Your task to perform on an android device: Open CNN.com Image 0: 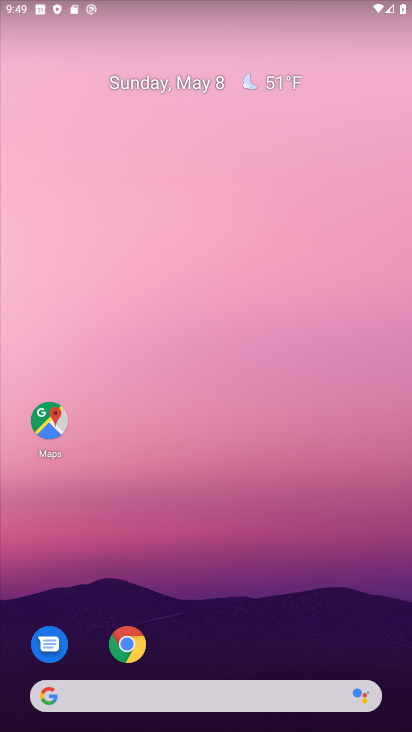
Step 0: click (146, 691)
Your task to perform on an android device: Open CNN.com Image 1: 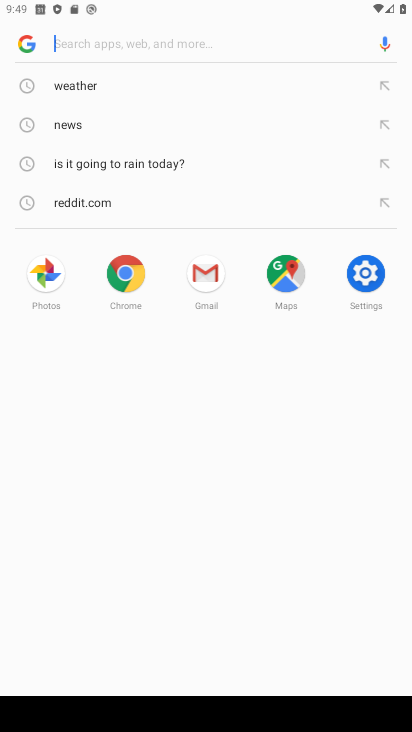
Step 1: type "cnn"
Your task to perform on an android device: Open CNN.com Image 2: 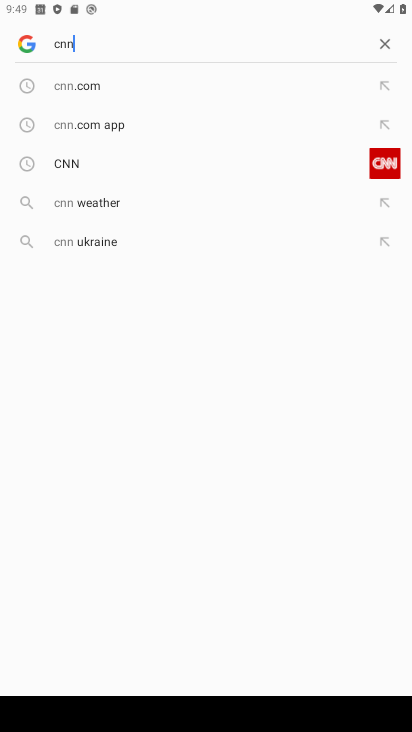
Step 2: click (156, 158)
Your task to perform on an android device: Open CNN.com Image 3: 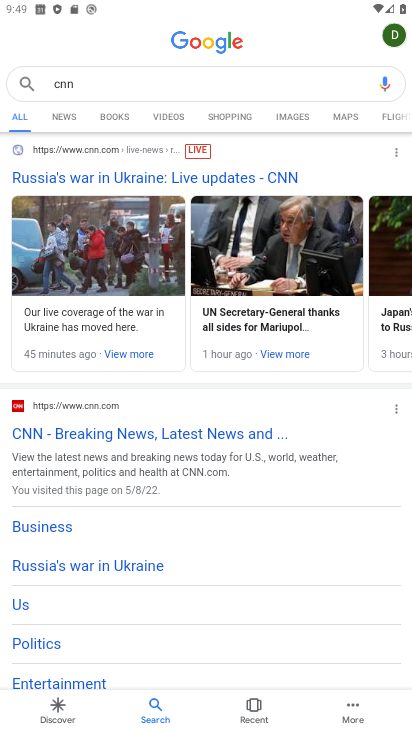
Step 3: click (102, 427)
Your task to perform on an android device: Open CNN.com Image 4: 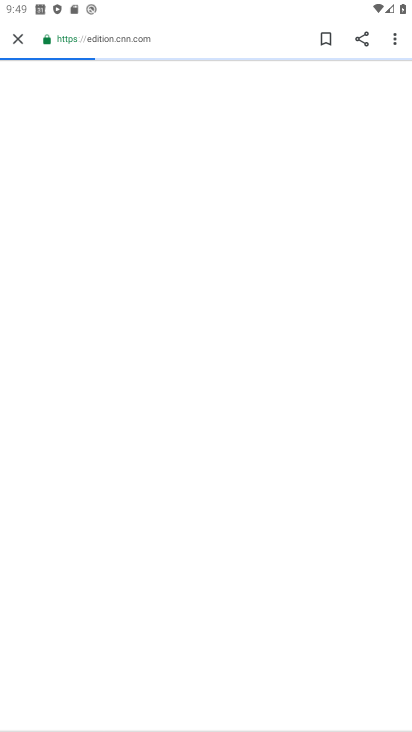
Step 4: task complete